Your task to perform on an android device: install app "McDonald's" Image 0: 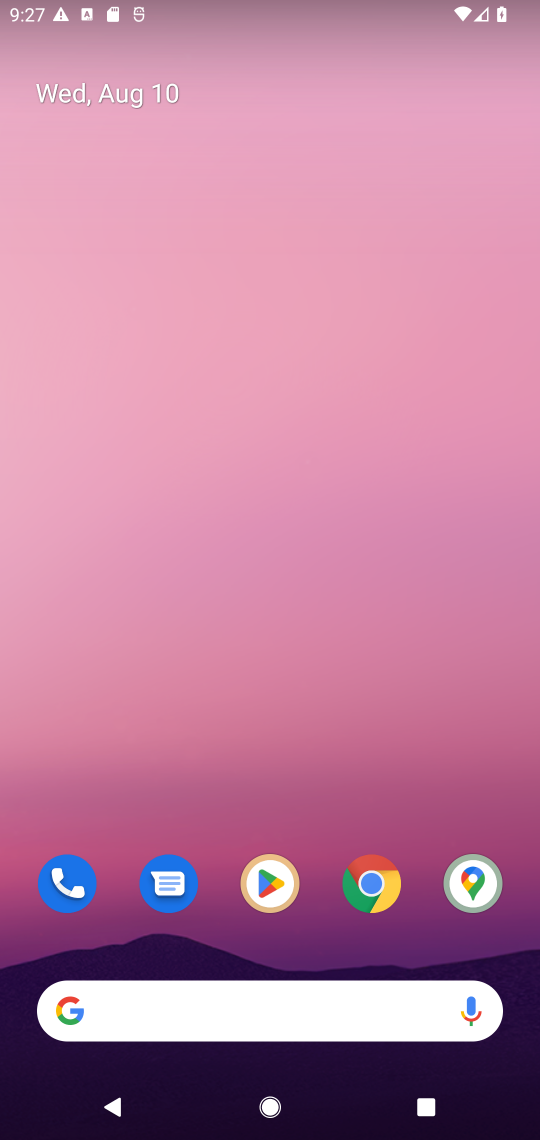
Step 0: click (276, 882)
Your task to perform on an android device: install app "McDonald's" Image 1: 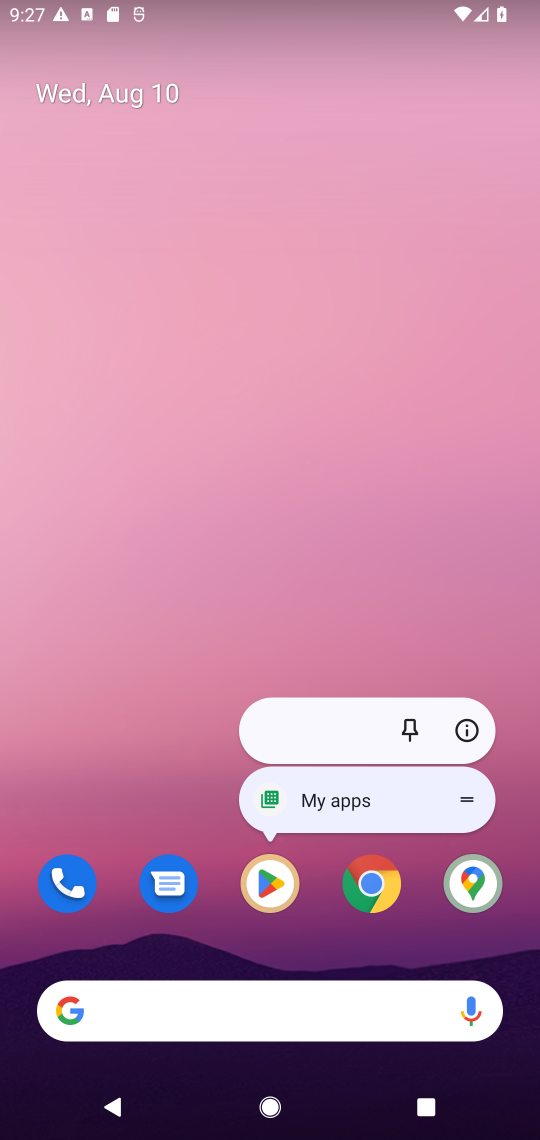
Step 1: click (267, 893)
Your task to perform on an android device: install app "McDonald's" Image 2: 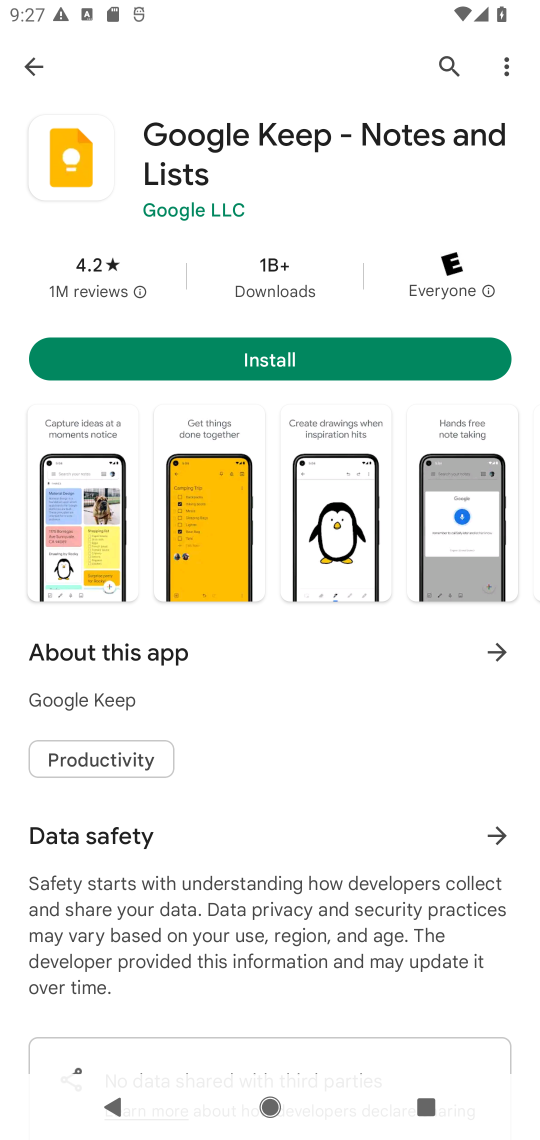
Step 2: click (440, 66)
Your task to perform on an android device: install app "McDonald's" Image 3: 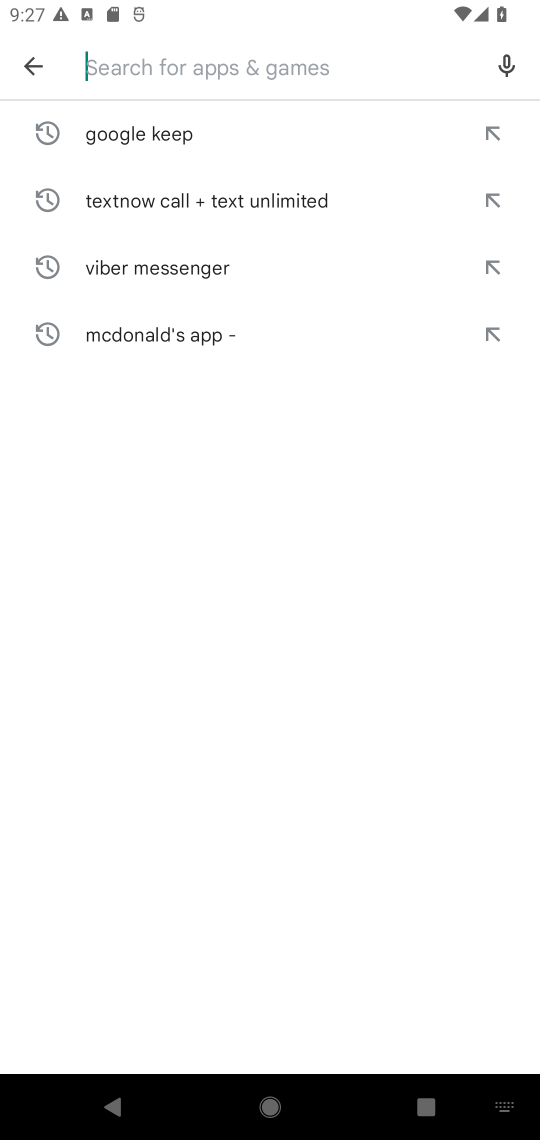
Step 3: type "McDonald's"
Your task to perform on an android device: install app "McDonald's" Image 4: 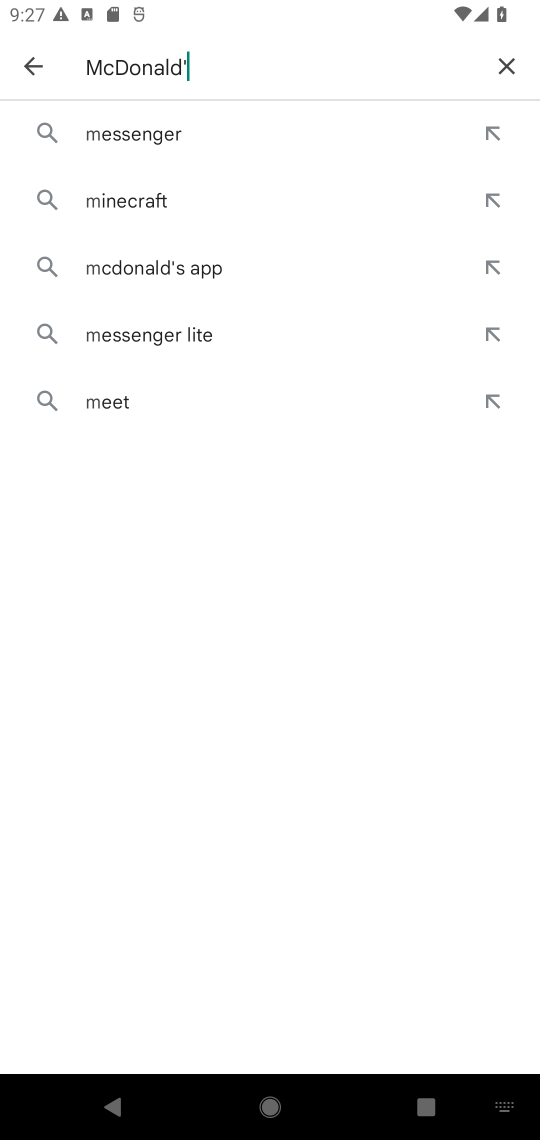
Step 4: type ""
Your task to perform on an android device: install app "McDonald's" Image 5: 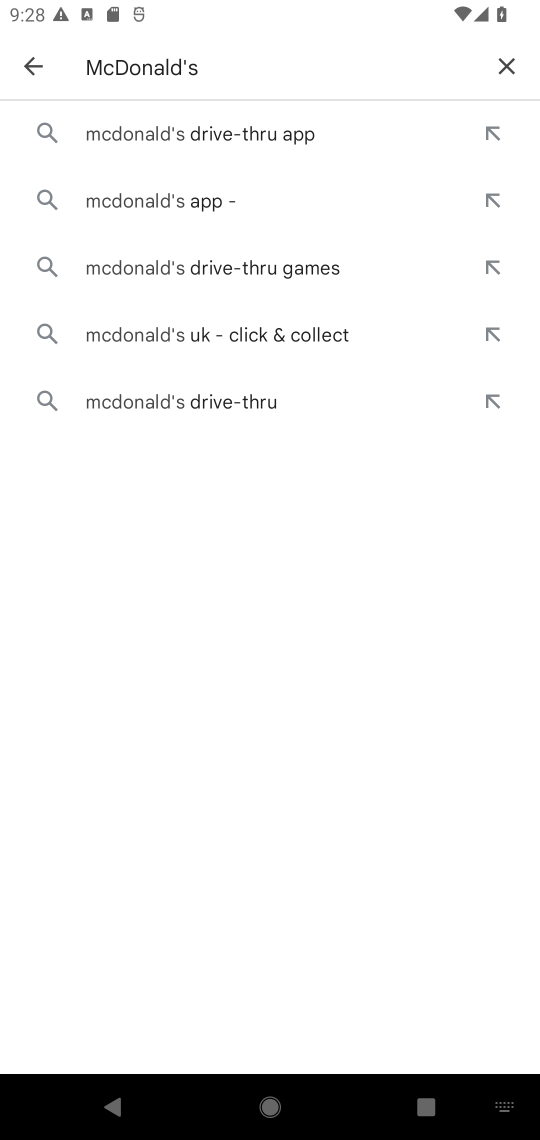
Step 5: click (186, 198)
Your task to perform on an android device: install app "McDonald's" Image 6: 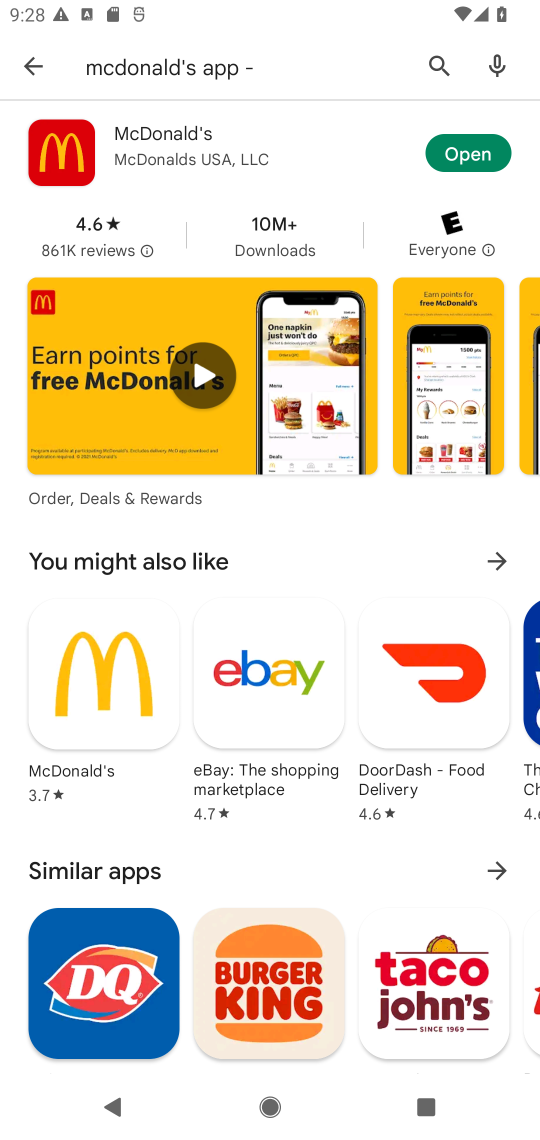
Step 6: task complete